Your task to perform on an android device: Open Google Chrome and click the shortcut for Amazon.com Image 0: 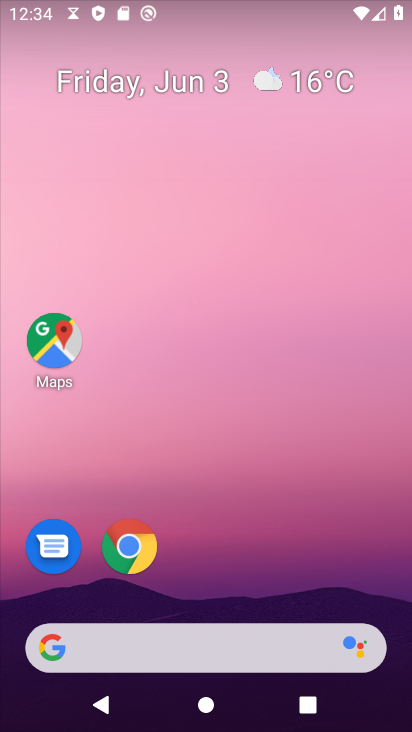
Step 0: click (136, 552)
Your task to perform on an android device: Open Google Chrome and click the shortcut for Amazon.com Image 1: 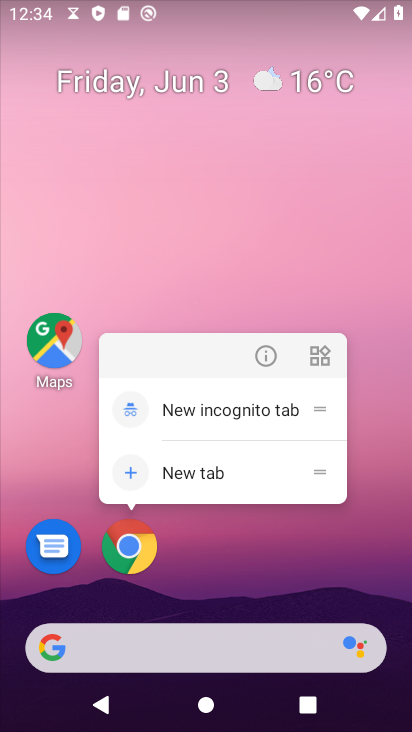
Step 1: click (136, 545)
Your task to perform on an android device: Open Google Chrome and click the shortcut for Amazon.com Image 2: 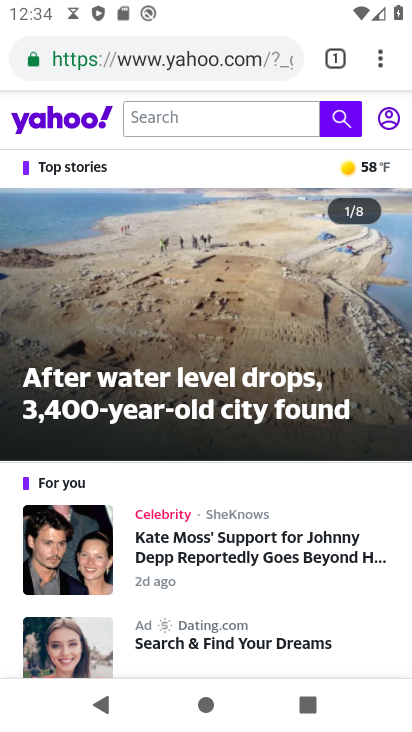
Step 2: click (330, 47)
Your task to perform on an android device: Open Google Chrome and click the shortcut for Amazon.com Image 3: 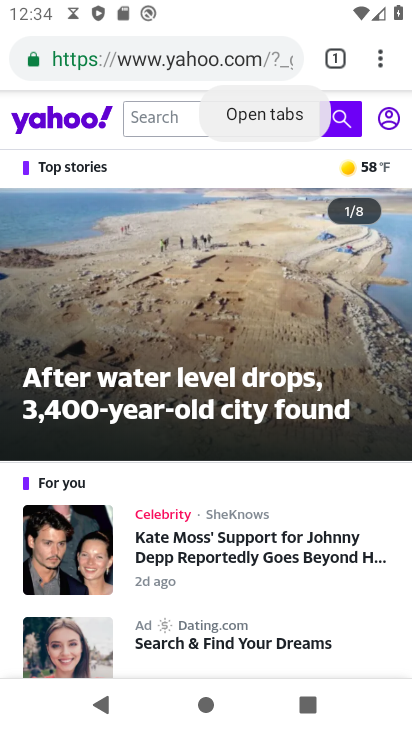
Step 3: click (334, 60)
Your task to perform on an android device: Open Google Chrome and click the shortcut for Amazon.com Image 4: 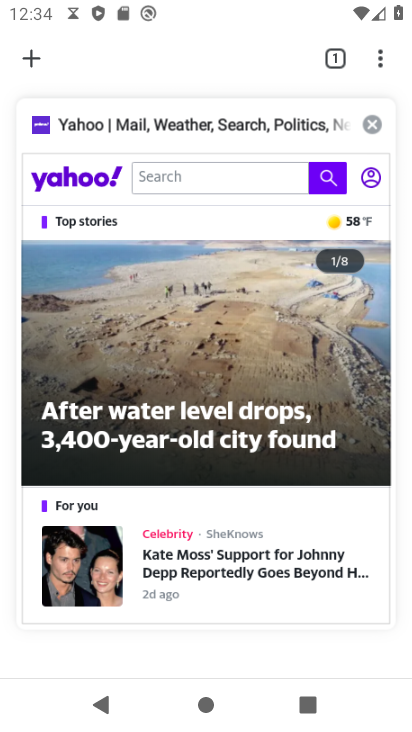
Step 4: click (42, 52)
Your task to perform on an android device: Open Google Chrome and click the shortcut for Amazon.com Image 5: 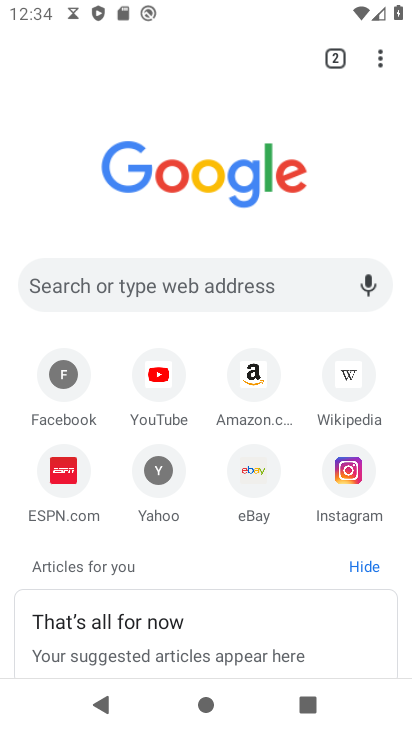
Step 5: click (251, 388)
Your task to perform on an android device: Open Google Chrome and click the shortcut for Amazon.com Image 6: 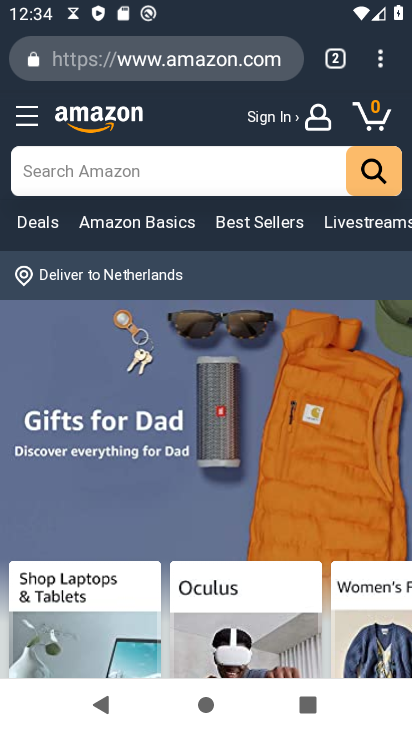
Step 6: task complete